Your task to perform on an android device: Show me the best rated 42 inch TV on Walmart. Image 0: 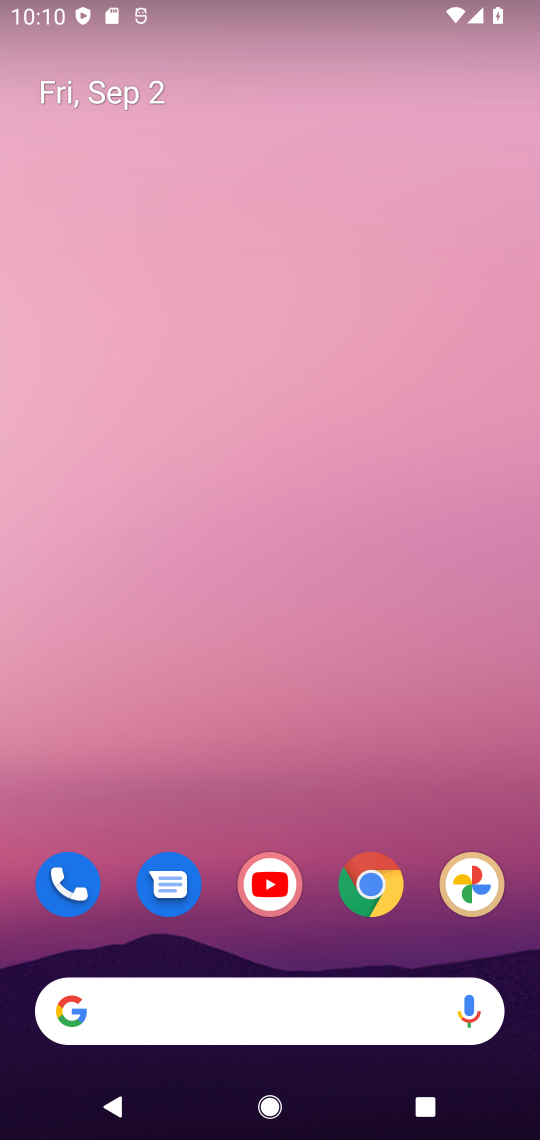
Step 0: click (363, 123)
Your task to perform on an android device: Show me the best rated 42 inch TV on Walmart. Image 1: 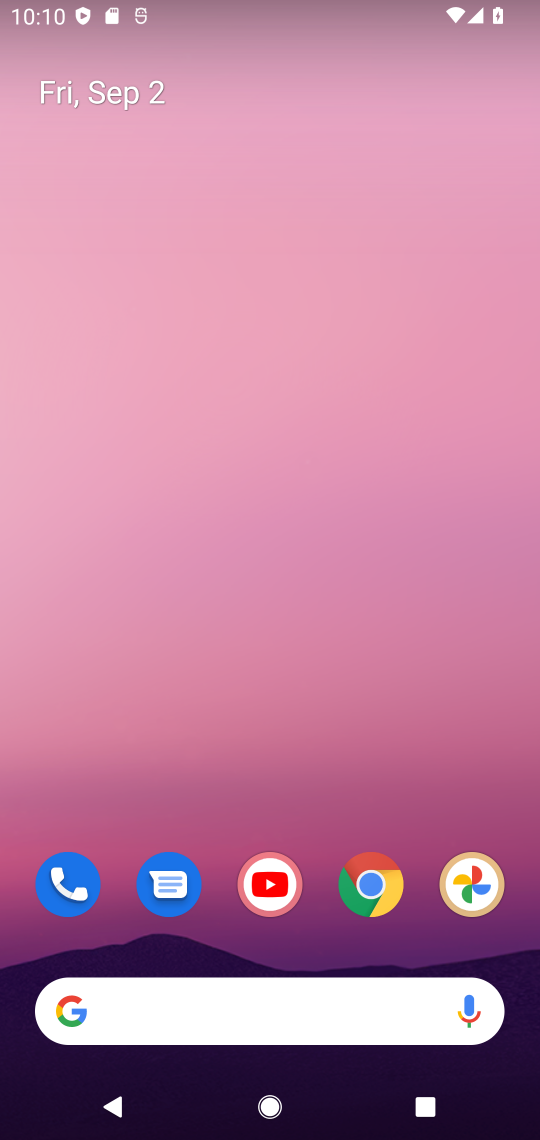
Step 1: drag from (313, 956) to (376, 377)
Your task to perform on an android device: Show me the best rated 42 inch TV on Walmart. Image 2: 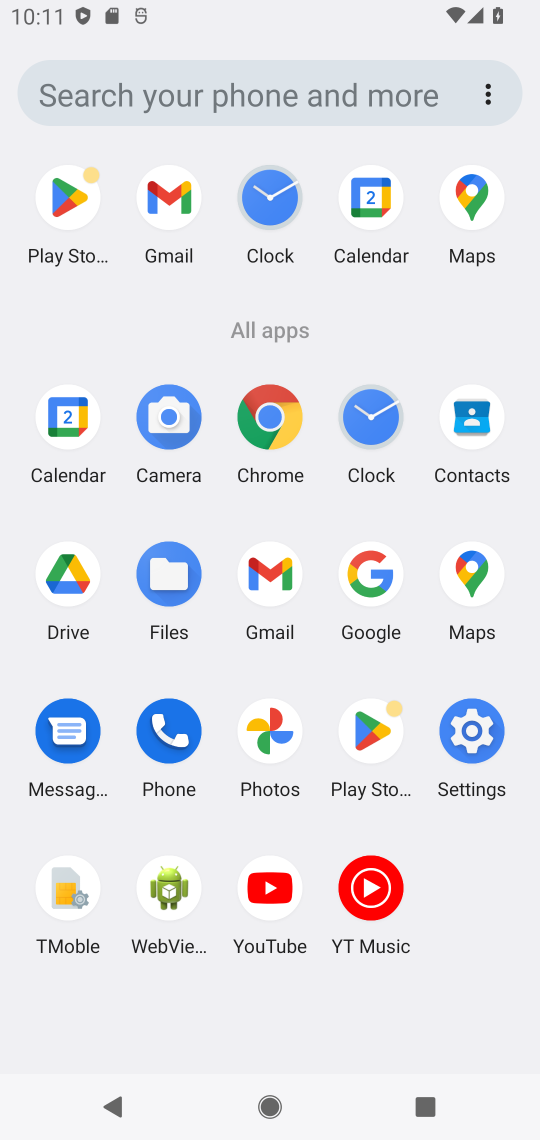
Step 2: click (263, 443)
Your task to perform on an android device: Show me the best rated 42 inch TV on Walmart. Image 3: 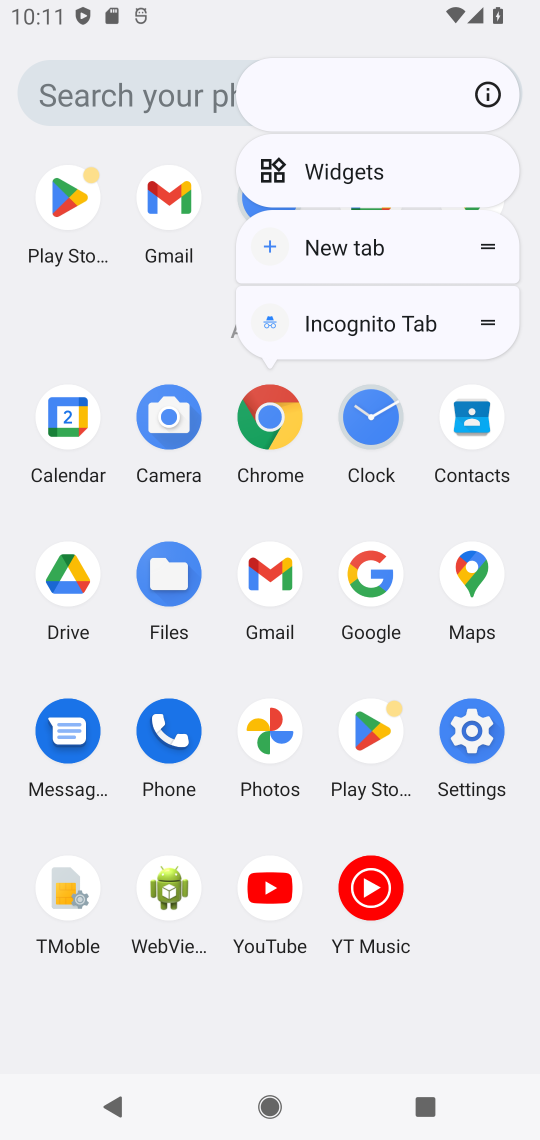
Step 3: click (263, 443)
Your task to perform on an android device: Show me the best rated 42 inch TV on Walmart. Image 4: 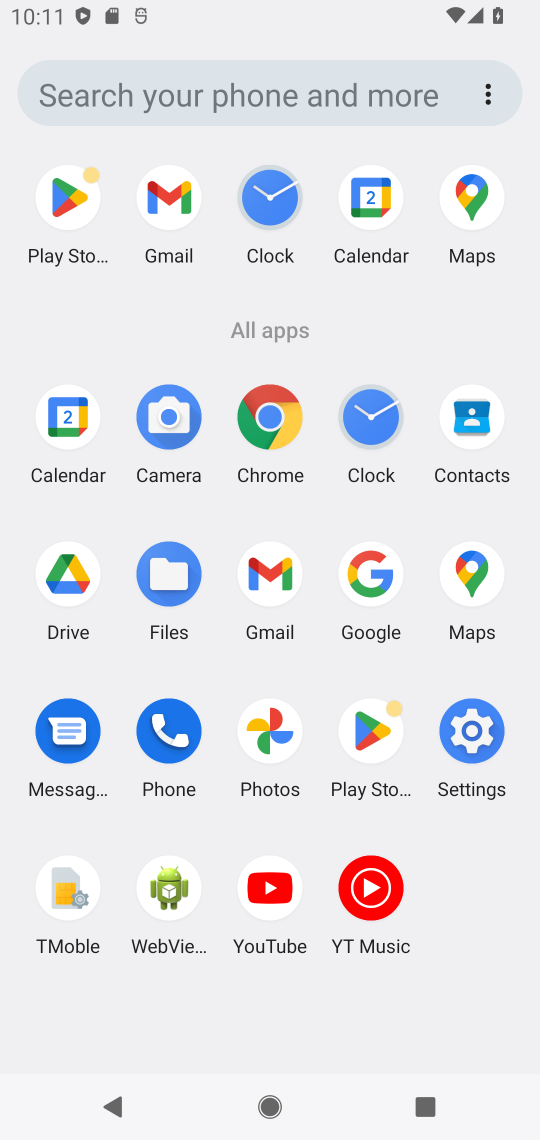
Step 4: click (263, 447)
Your task to perform on an android device: Show me the best rated 42 inch TV on Walmart. Image 5: 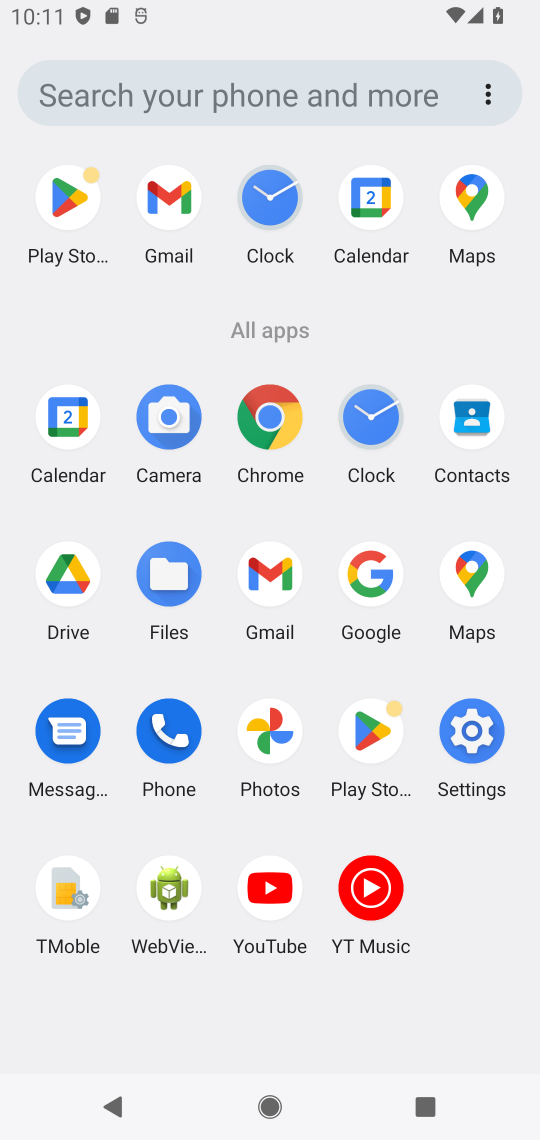
Step 5: click (282, 447)
Your task to perform on an android device: Show me the best rated 42 inch TV on Walmart. Image 6: 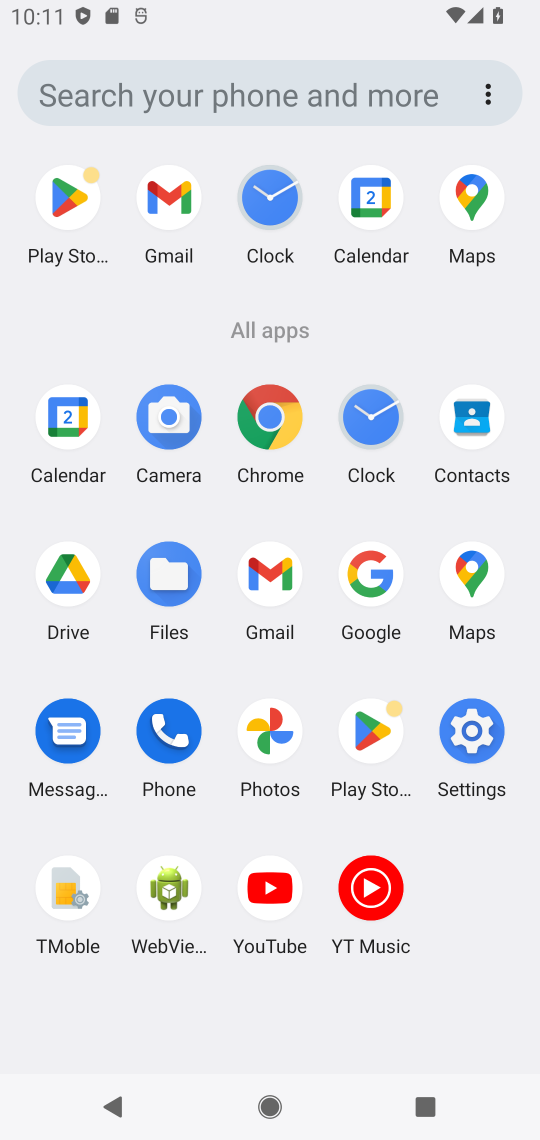
Step 6: click (275, 427)
Your task to perform on an android device: Show me the best rated 42 inch TV on Walmart. Image 7: 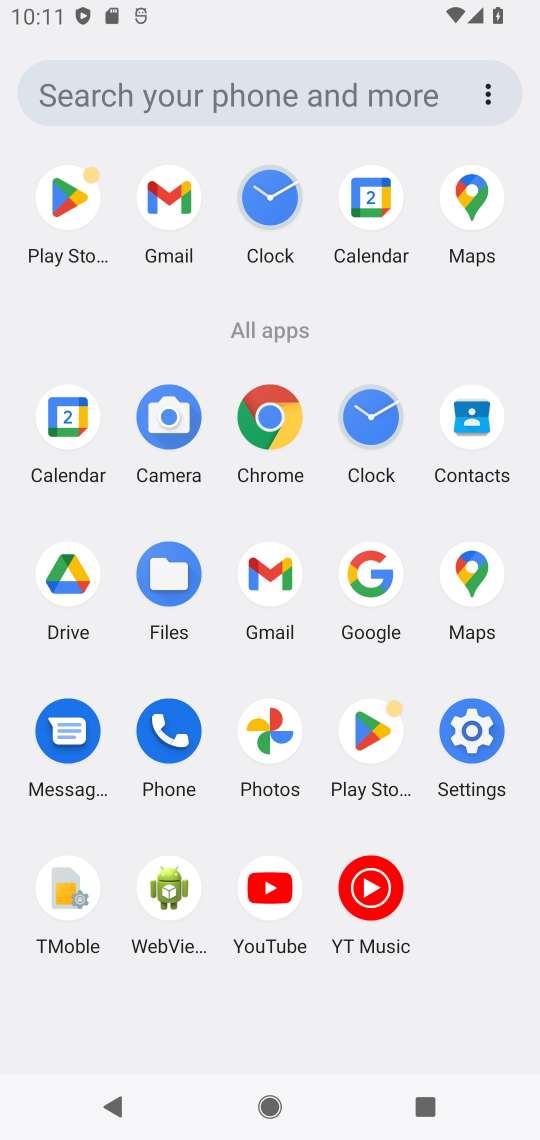
Step 7: click (286, 433)
Your task to perform on an android device: Show me the best rated 42 inch TV on Walmart. Image 8: 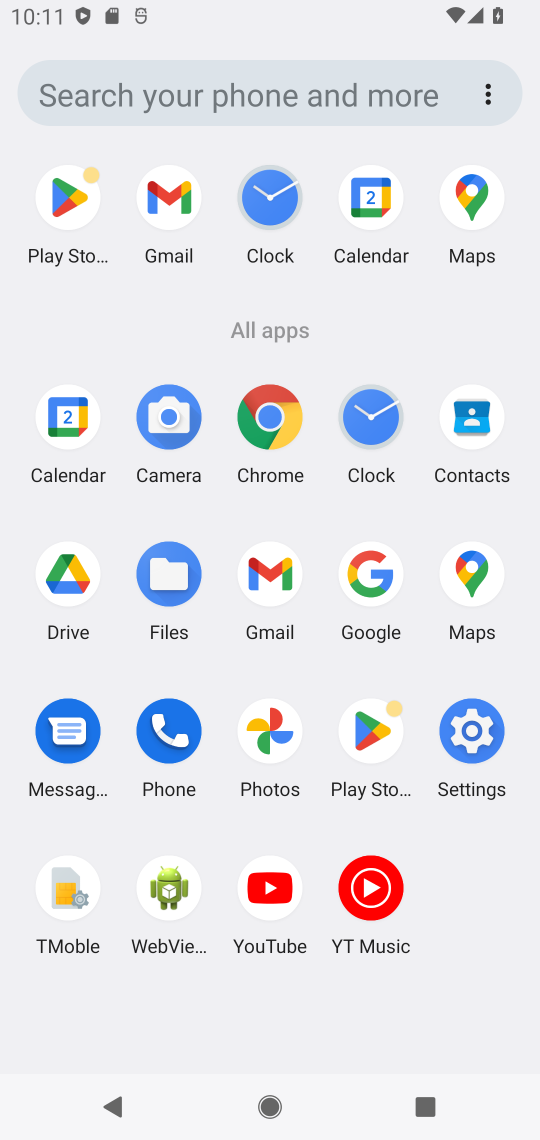
Step 8: click (286, 433)
Your task to perform on an android device: Show me the best rated 42 inch TV on Walmart. Image 9: 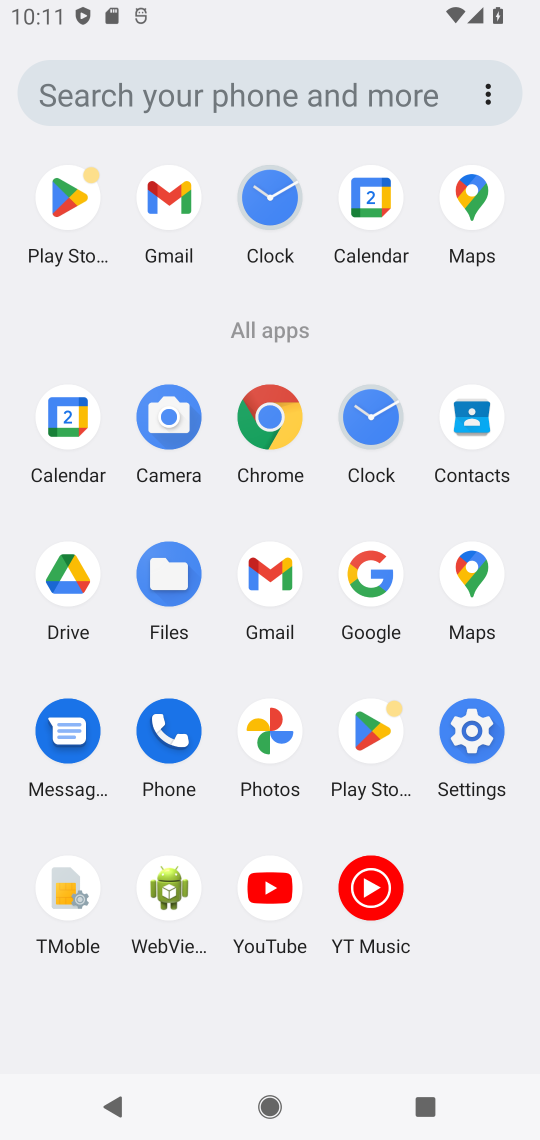
Step 9: click (280, 454)
Your task to perform on an android device: Show me the best rated 42 inch TV on Walmart. Image 10: 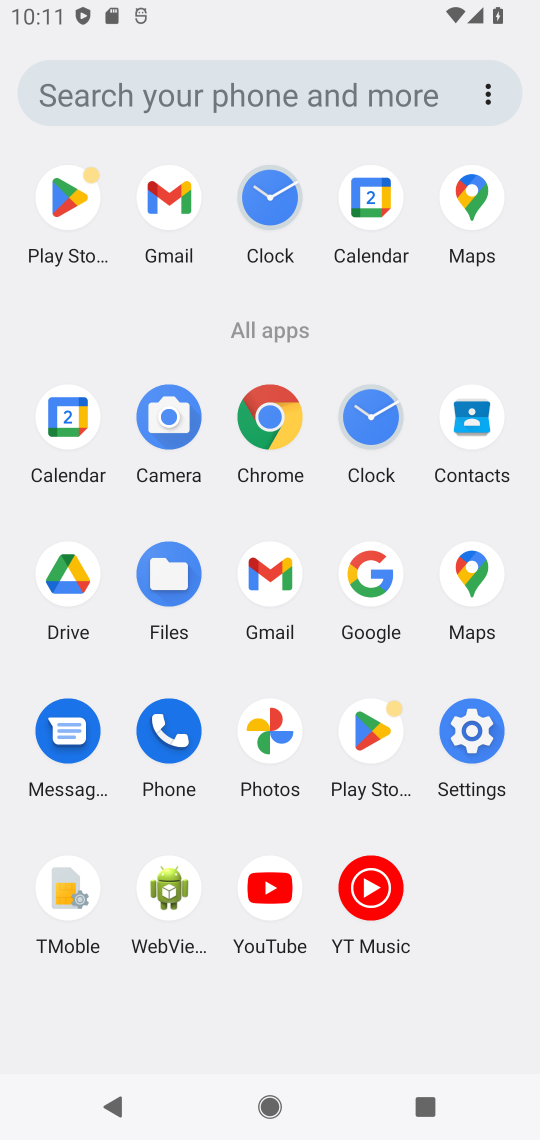
Step 10: click (280, 454)
Your task to perform on an android device: Show me the best rated 42 inch TV on Walmart. Image 11: 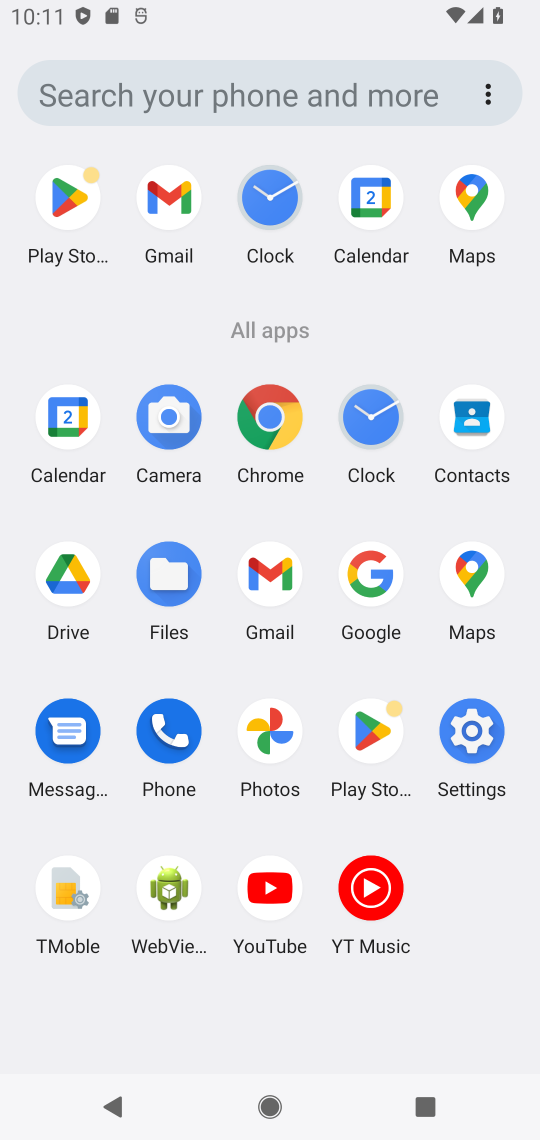
Step 11: click (280, 454)
Your task to perform on an android device: Show me the best rated 42 inch TV on Walmart. Image 12: 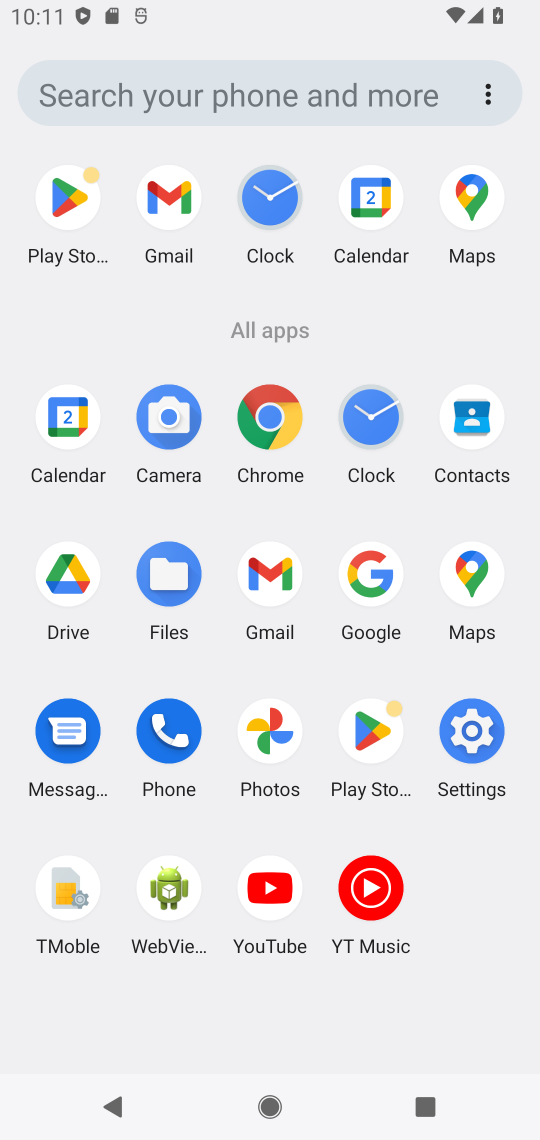
Step 12: drag from (280, 810) to (286, 253)
Your task to perform on an android device: Show me the best rated 42 inch TV on Walmart. Image 13: 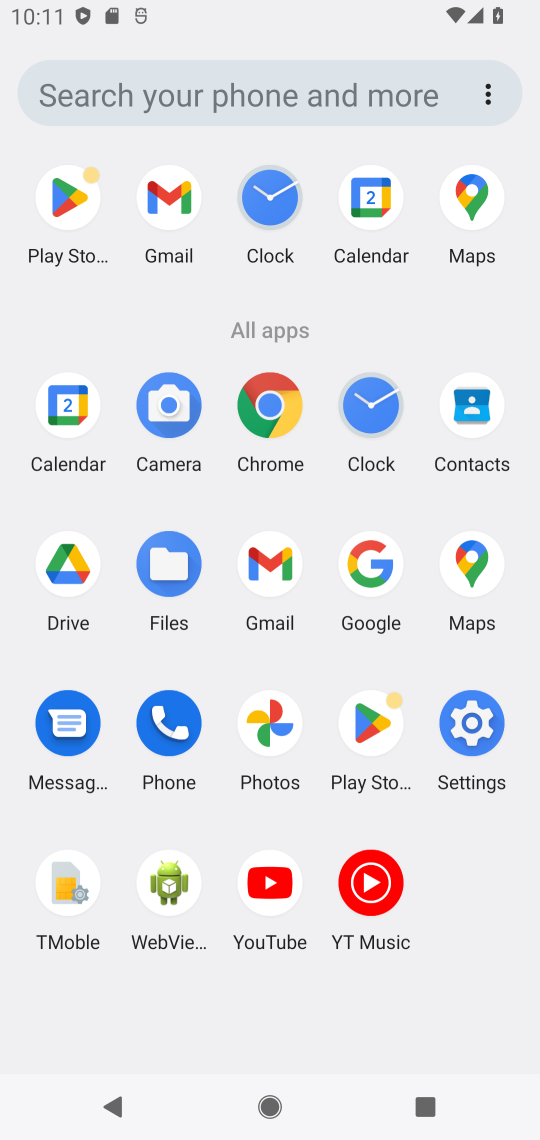
Step 13: drag from (285, 299) to (313, 417)
Your task to perform on an android device: Show me the best rated 42 inch TV on Walmart. Image 14: 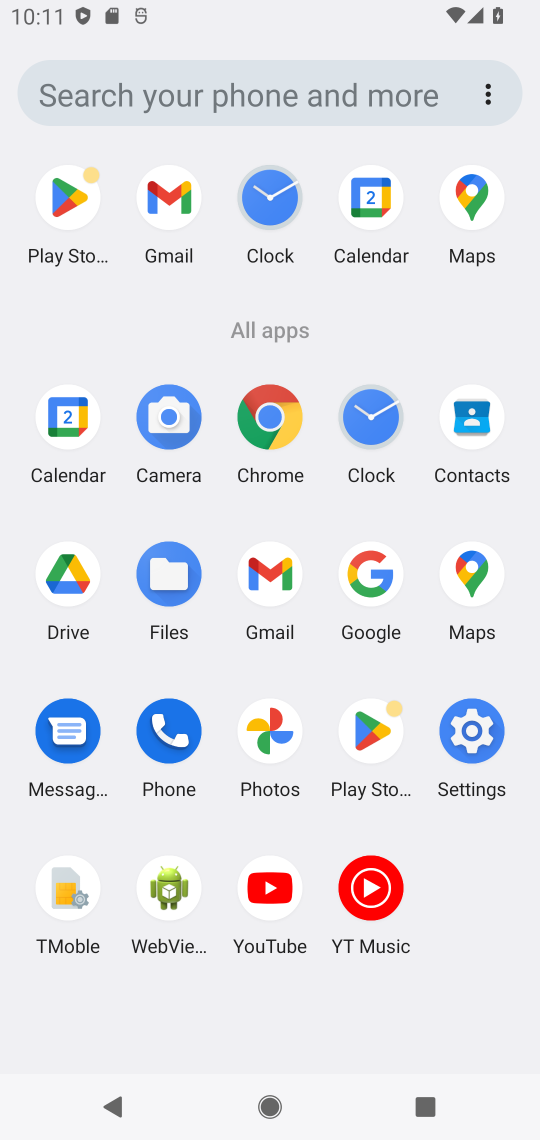
Step 14: click (273, 446)
Your task to perform on an android device: Show me the best rated 42 inch TV on Walmart. Image 15: 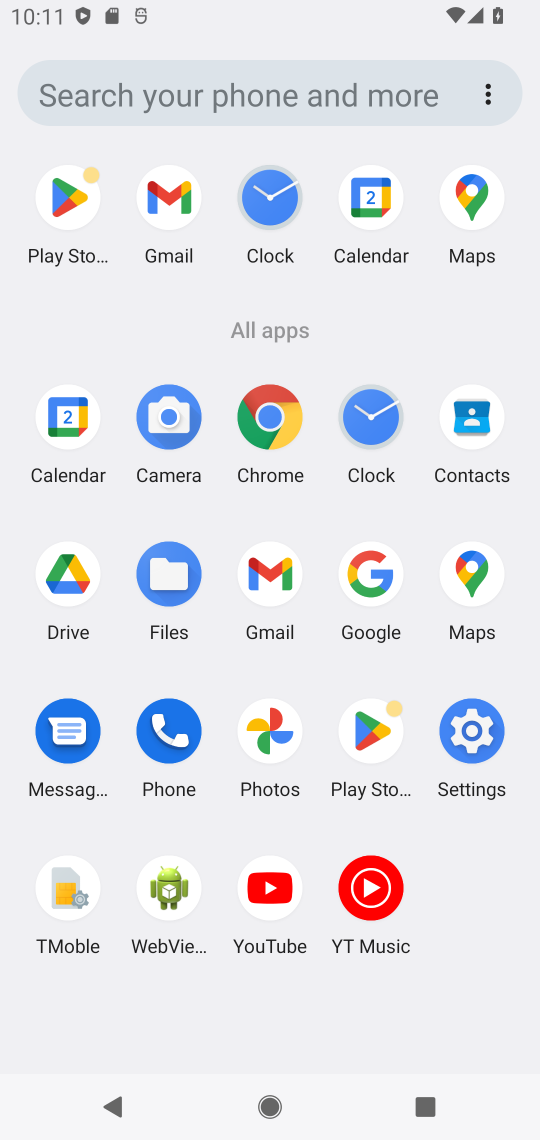
Step 15: click (273, 446)
Your task to perform on an android device: Show me the best rated 42 inch TV on Walmart. Image 16: 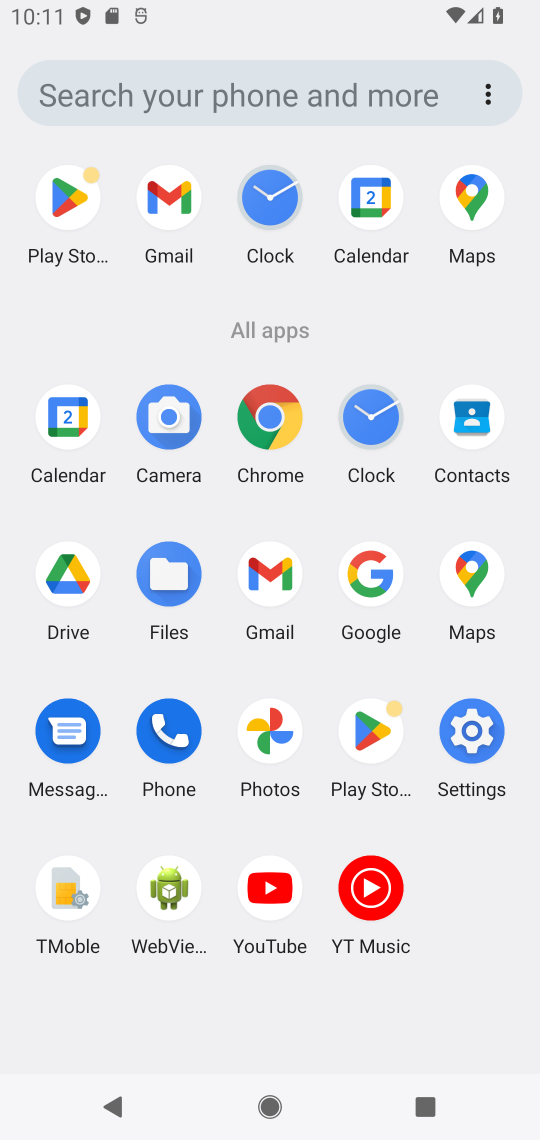
Step 16: click (283, 436)
Your task to perform on an android device: Show me the best rated 42 inch TV on Walmart. Image 17: 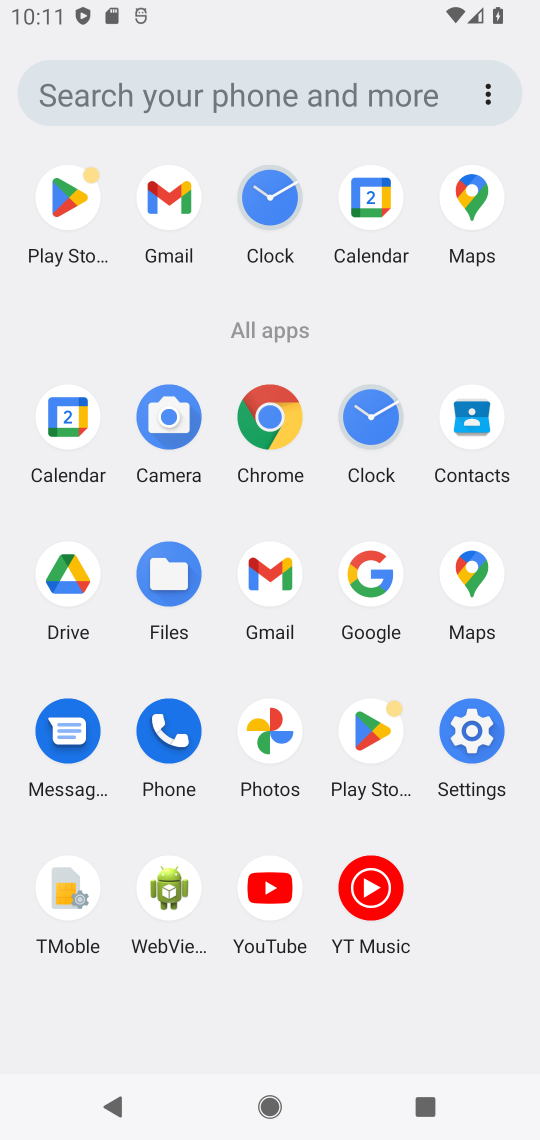
Step 17: click (283, 436)
Your task to perform on an android device: Show me the best rated 42 inch TV on Walmart. Image 18: 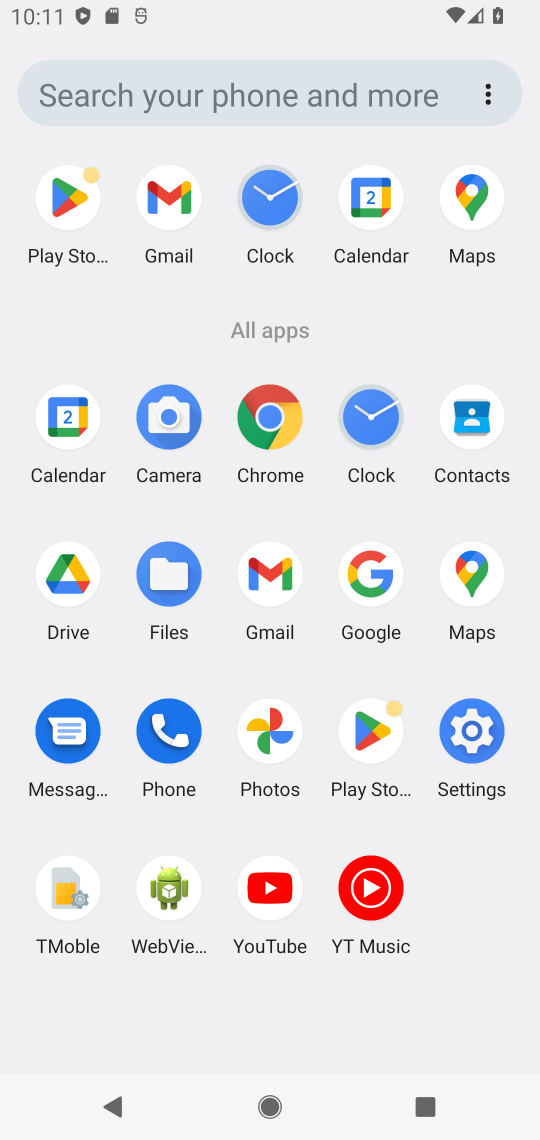
Step 18: click (283, 436)
Your task to perform on an android device: Show me the best rated 42 inch TV on Walmart. Image 19: 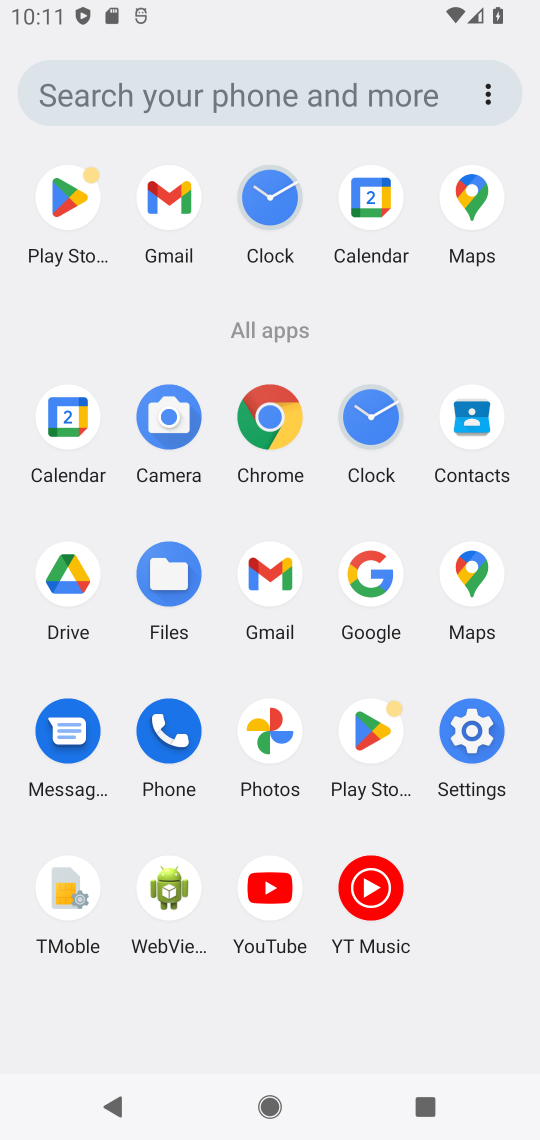
Step 19: click (283, 436)
Your task to perform on an android device: Show me the best rated 42 inch TV on Walmart. Image 20: 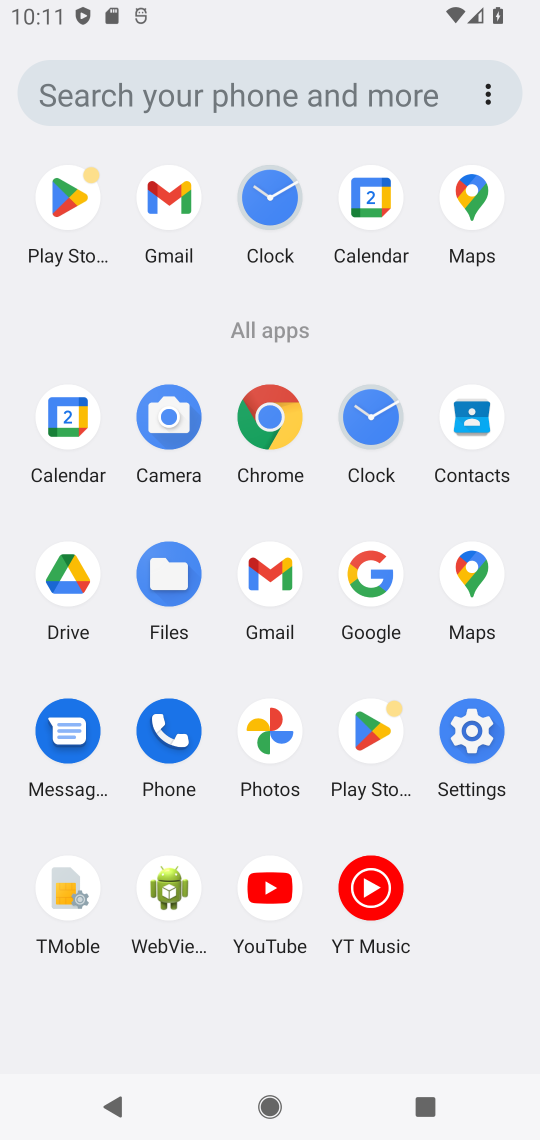
Step 20: click (376, 443)
Your task to perform on an android device: Show me the best rated 42 inch TV on Walmart. Image 21: 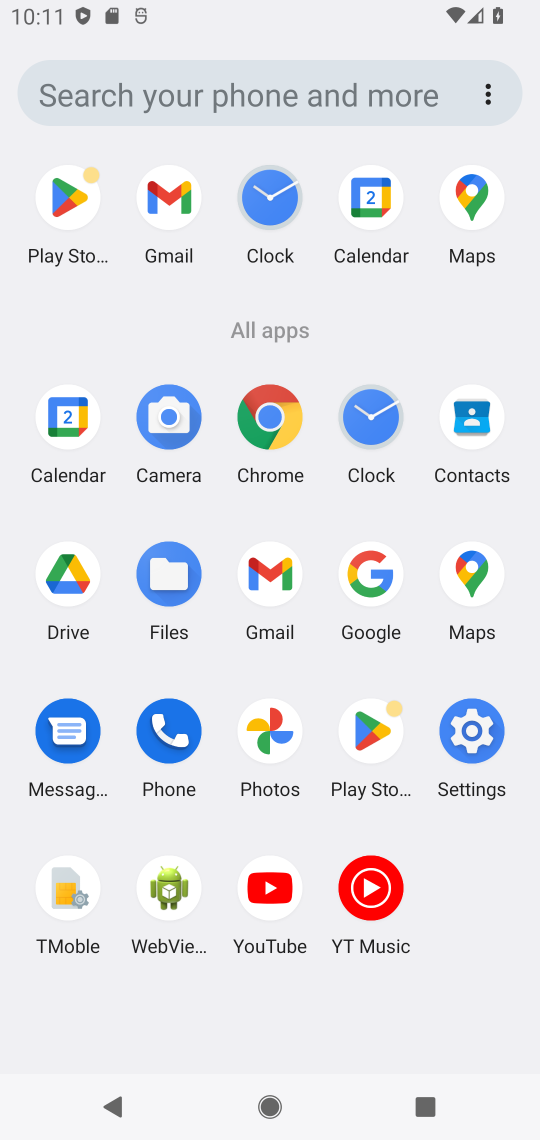
Step 21: click (376, 443)
Your task to perform on an android device: Show me the best rated 42 inch TV on Walmart. Image 22: 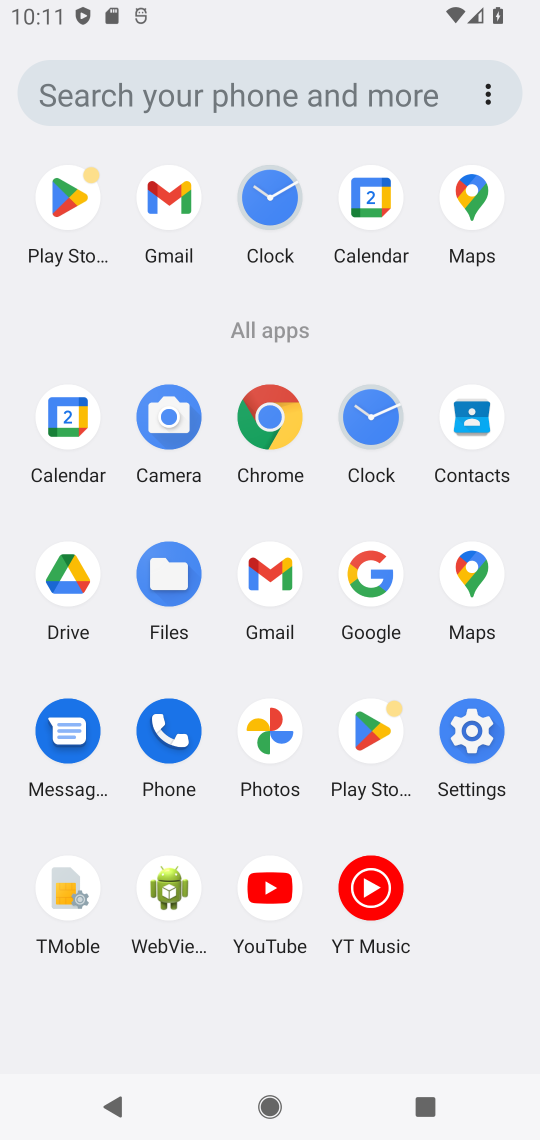
Step 22: click (376, 443)
Your task to perform on an android device: Show me the best rated 42 inch TV on Walmart. Image 23: 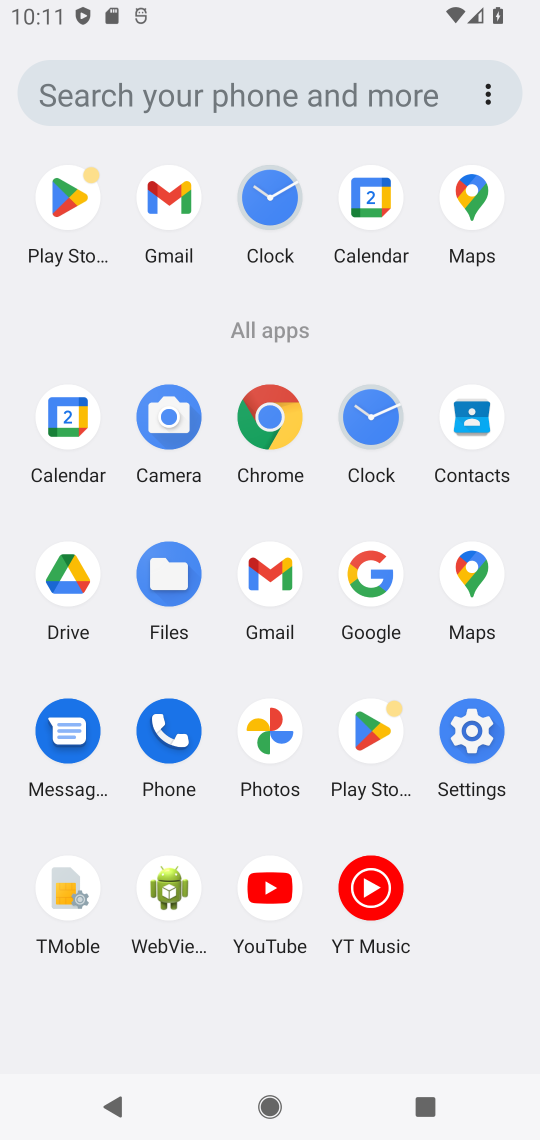
Step 23: click (376, 443)
Your task to perform on an android device: Show me the best rated 42 inch TV on Walmart. Image 24: 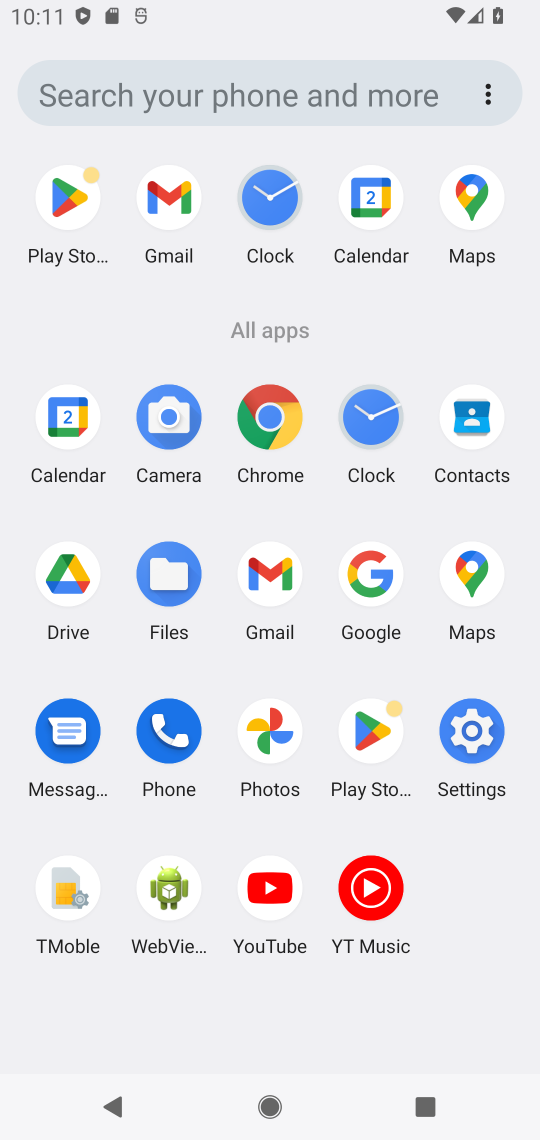
Step 24: click (435, 307)
Your task to perform on an android device: Show me the best rated 42 inch TV on Walmart. Image 25: 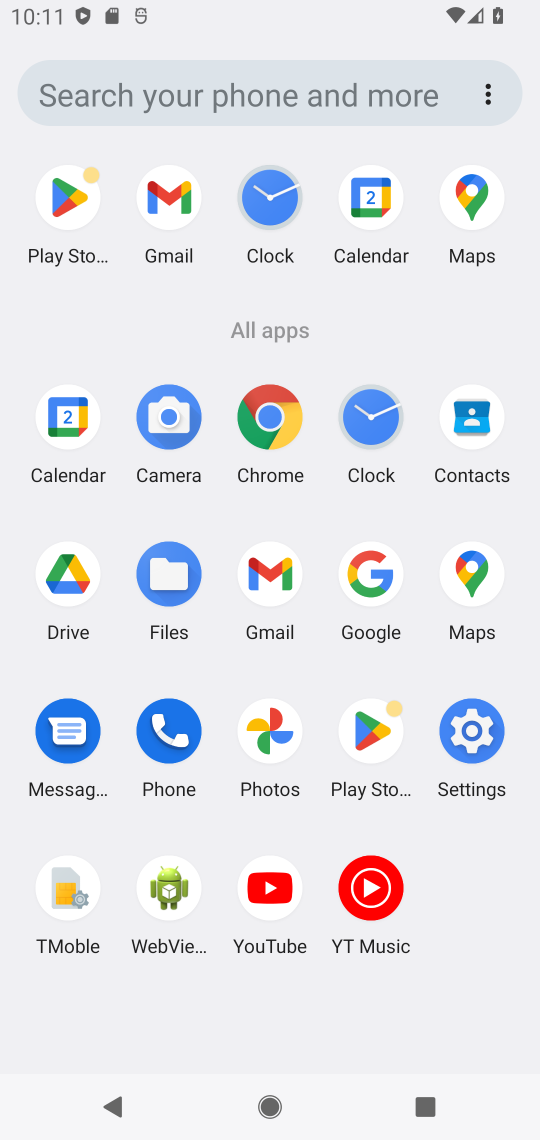
Step 25: click (257, 454)
Your task to perform on an android device: Show me the best rated 42 inch TV on Walmart. Image 26: 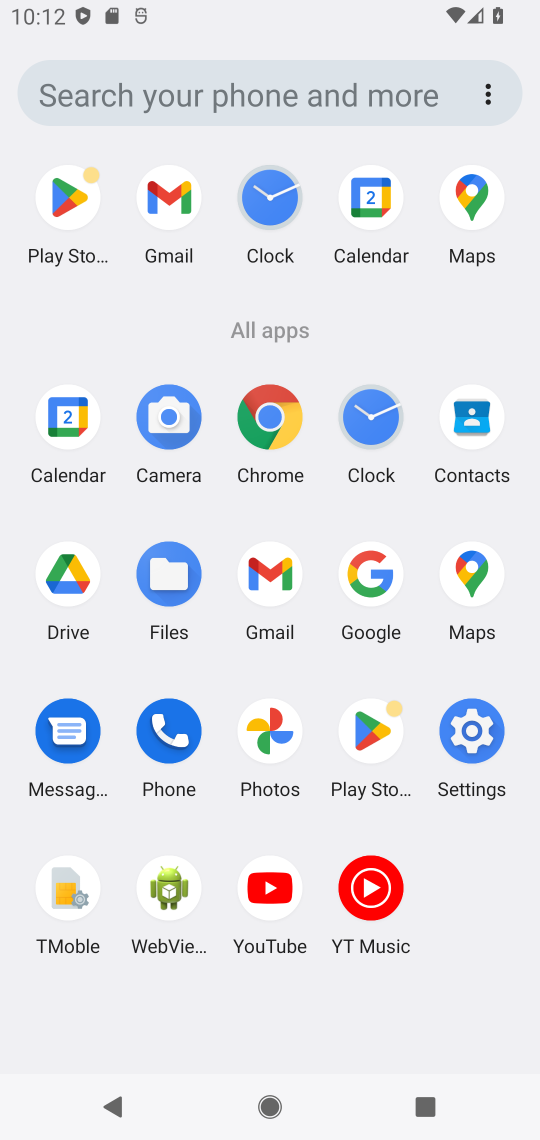
Step 26: click (286, 443)
Your task to perform on an android device: Show me the best rated 42 inch TV on Walmart. Image 27: 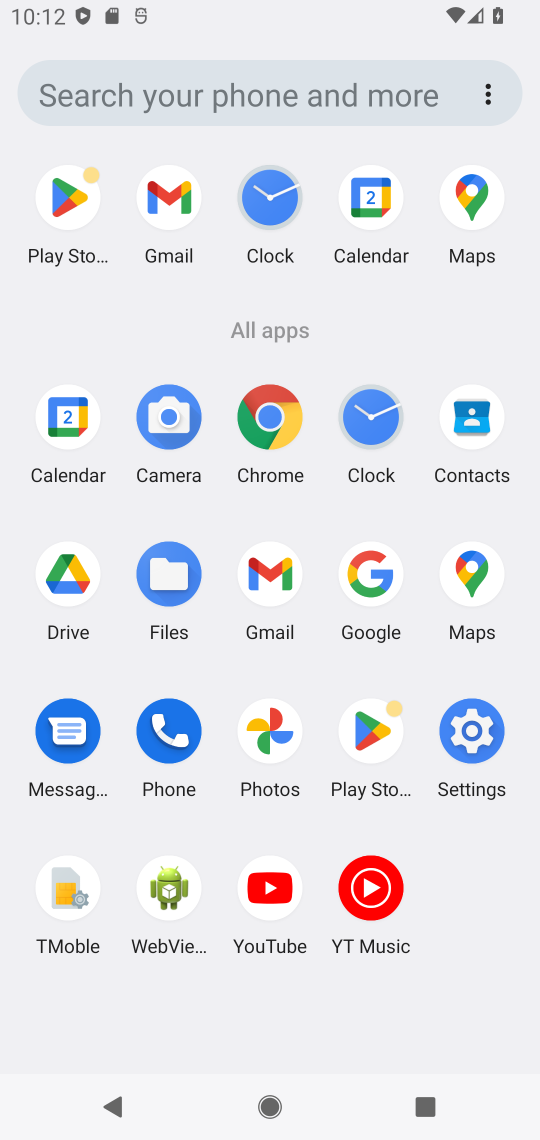
Step 27: click (276, 431)
Your task to perform on an android device: Show me the best rated 42 inch TV on Walmart. Image 28: 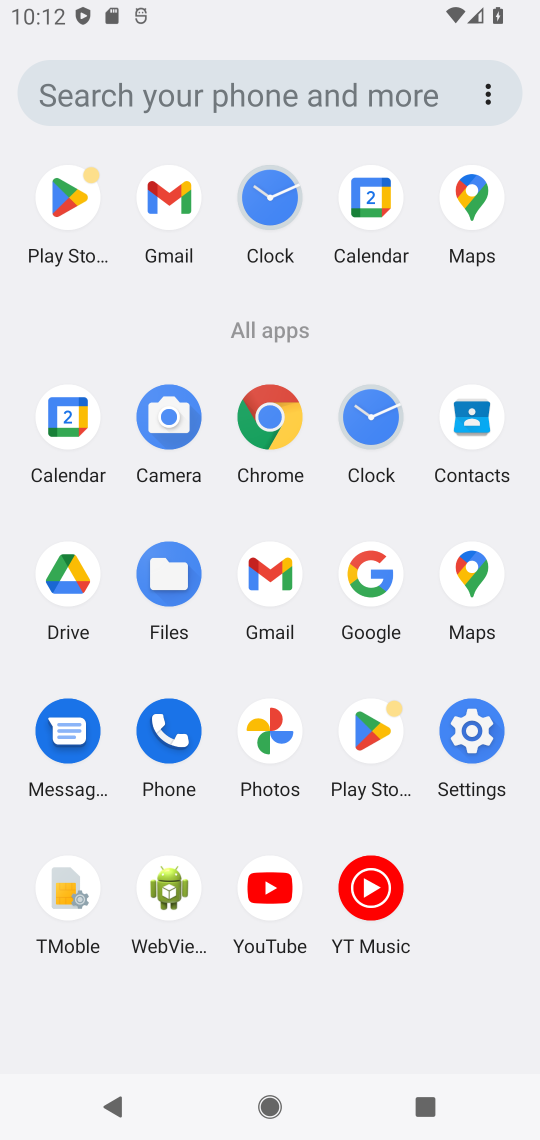
Step 28: click (276, 431)
Your task to perform on an android device: Show me the best rated 42 inch TV on Walmart. Image 29: 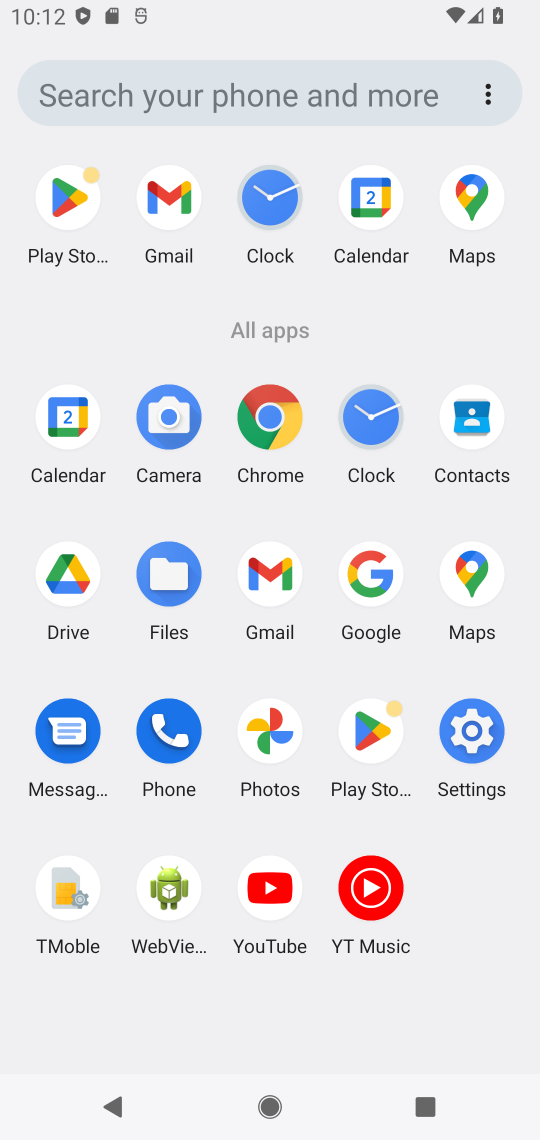
Step 29: click (276, 431)
Your task to perform on an android device: Show me the best rated 42 inch TV on Walmart. Image 30: 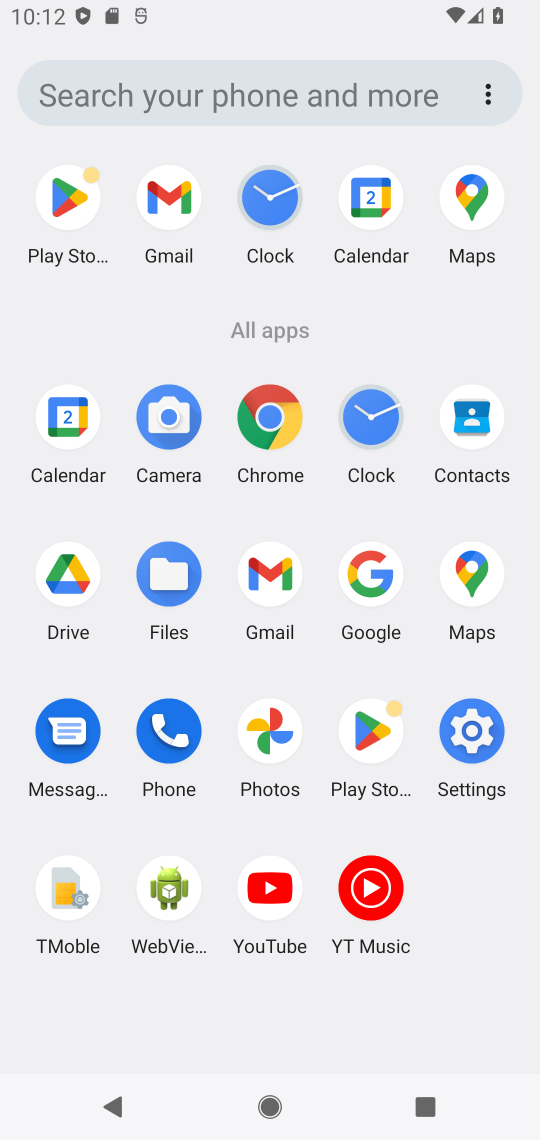
Step 30: click (281, 597)
Your task to perform on an android device: Show me the best rated 42 inch TV on Walmart. Image 31: 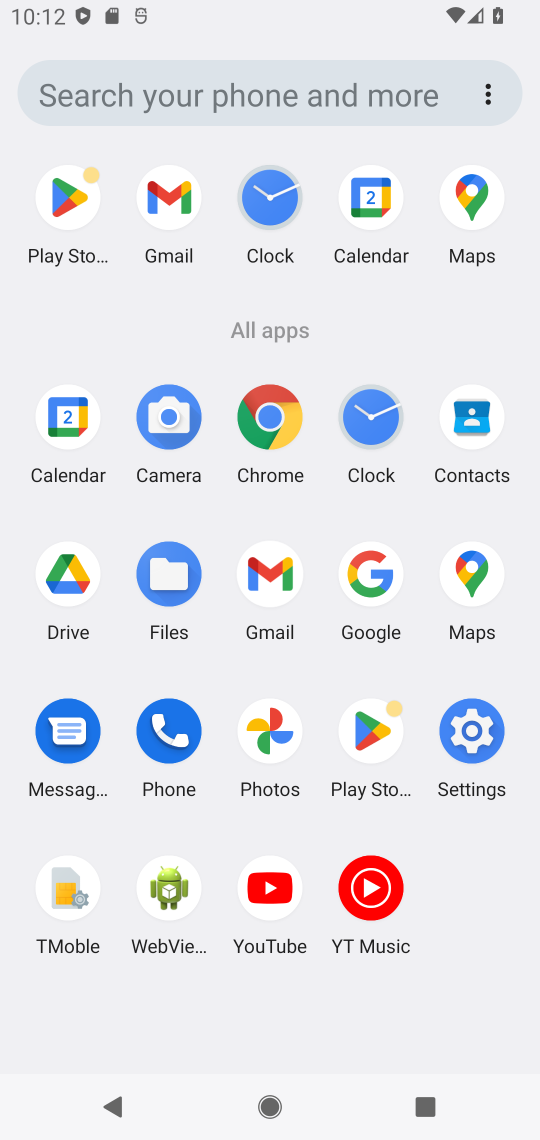
Step 31: click (281, 597)
Your task to perform on an android device: Show me the best rated 42 inch TV on Walmart. Image 32: 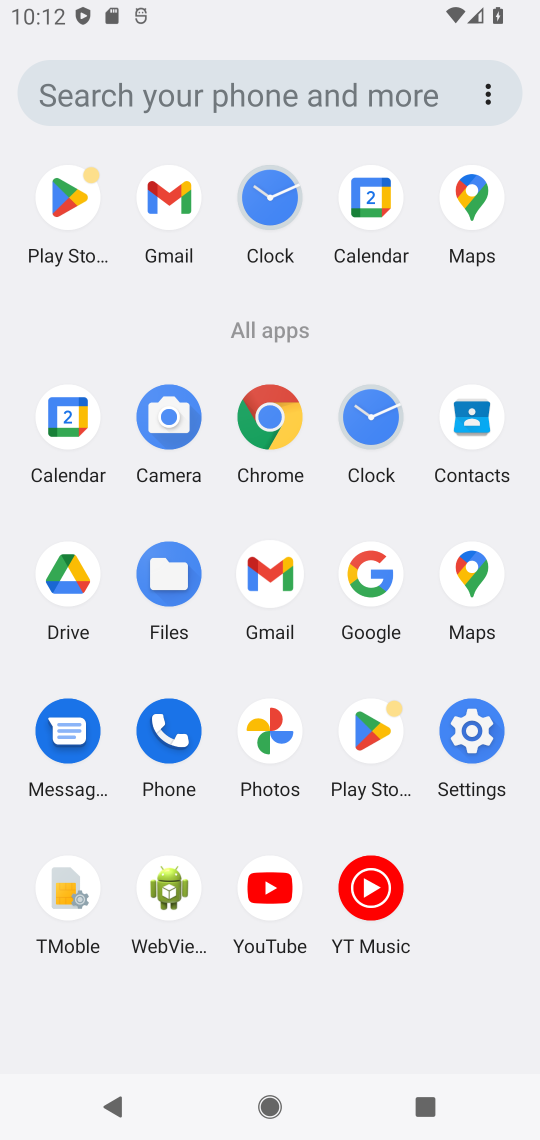
Step 32: click (281, 597)
Your task to perform on an android device: Show me the best rated 42 inch TV on Walmart. Image 33: 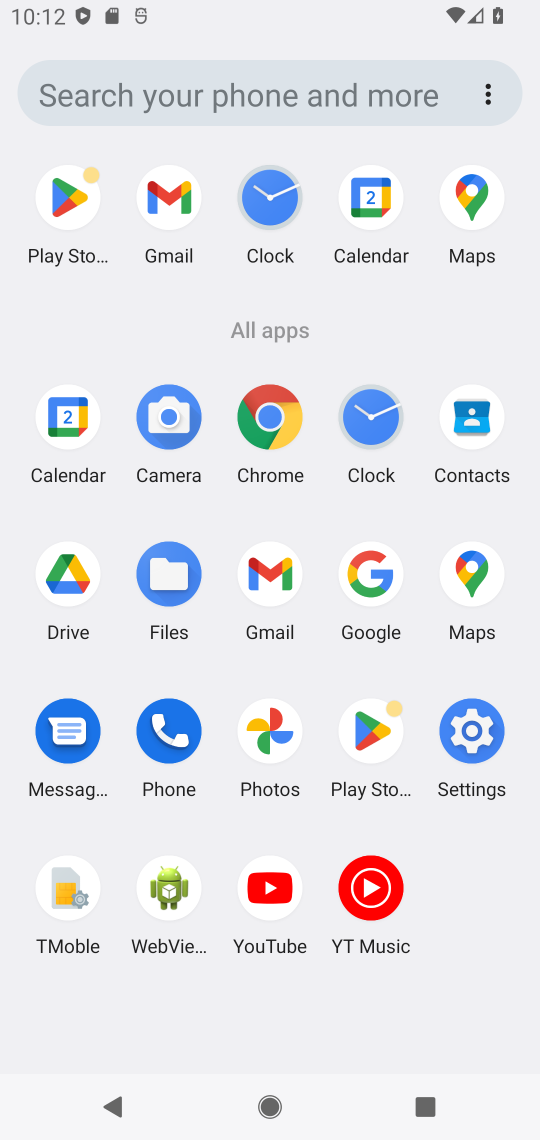
Step 33: click (71, 588)
Your task to perform on an android device: Show me the best rated 42 inch TV on Walmart. Image 34: 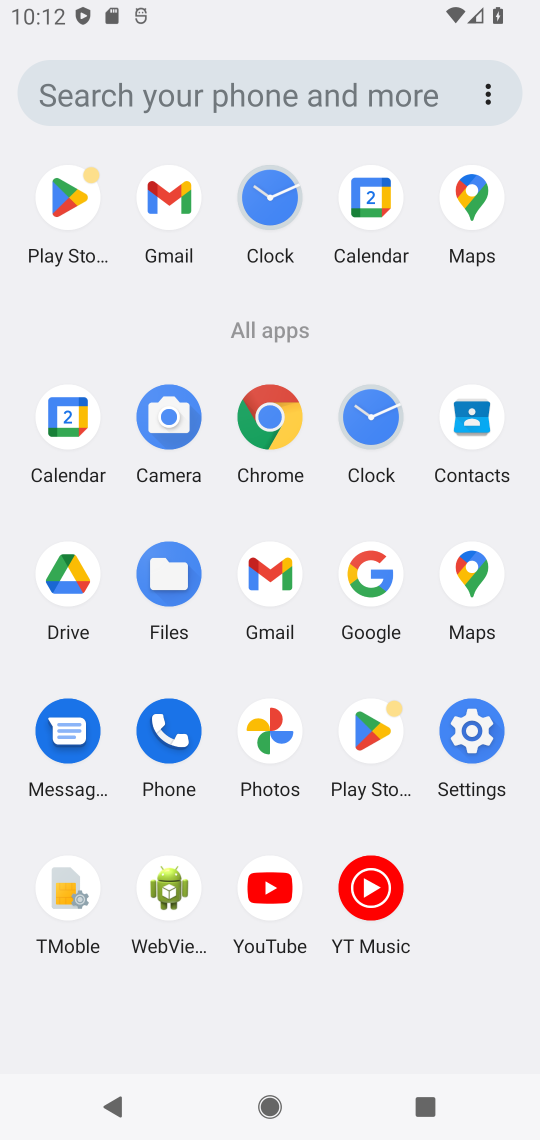
Step 34: click (71, 588)
Your task to perform on an android device: Show me the best rated 42 inch TV on Walmart. Image 35: 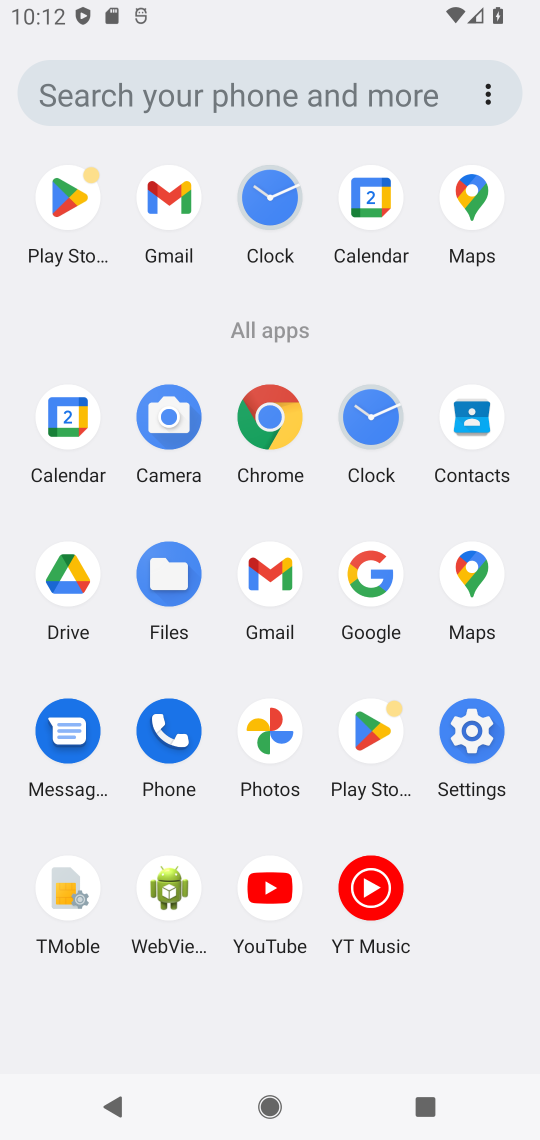
Step 35: click (192, 196)
Your task to perform on an android device: Show me the best rated 42 inch TV on Walmart. Image 36: 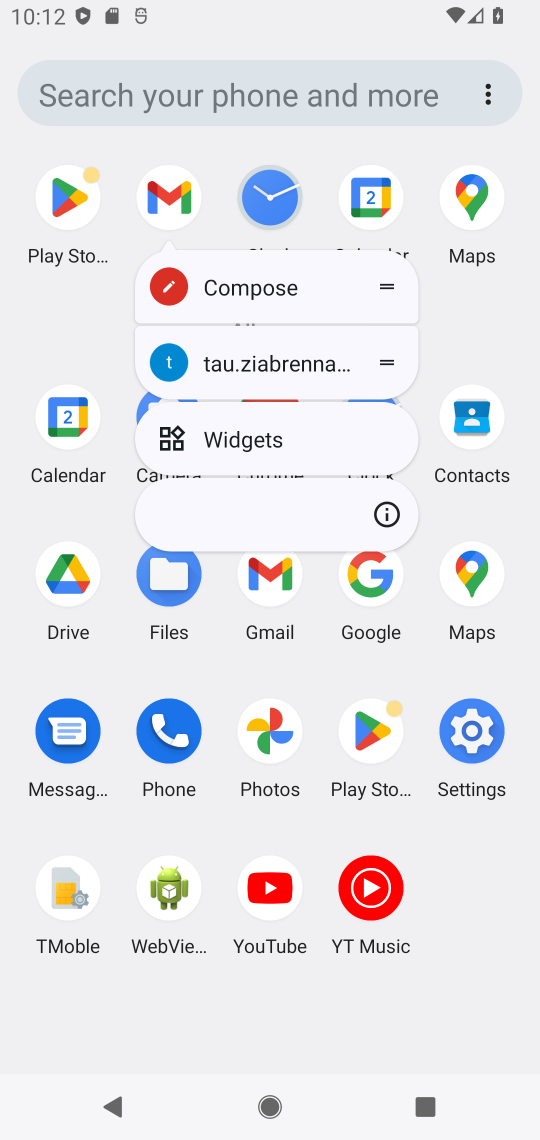
Step 36: click (351, 710)
Your task to perform on an android device: Show me the best rated 42 inch TV on Walmart. Image 37: 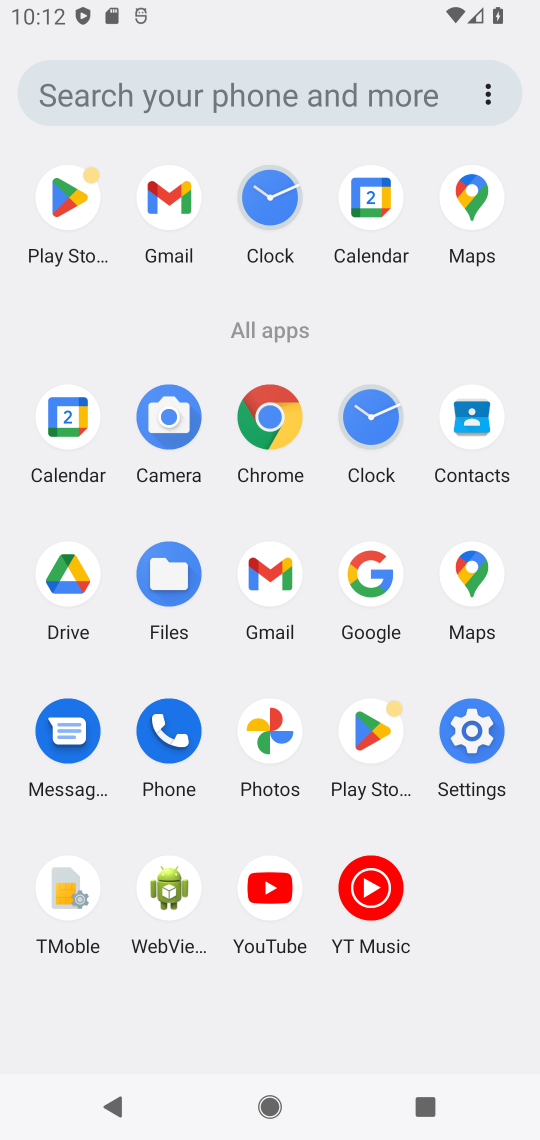
Step 37: click (283, 467)
Your task to perform on an android device: Show me the best rated 42 inch TV on Walmart. Image 38: 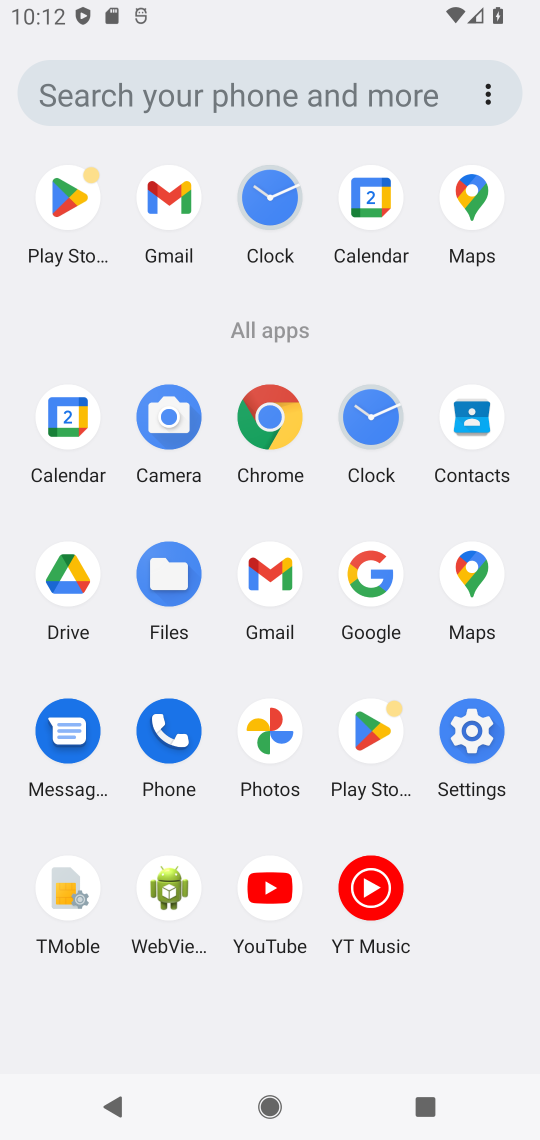
Step 38: click (271, 476)
Your task to perform on an android device: Show me the best rated 42 inch TV on Walmart. Image 39: 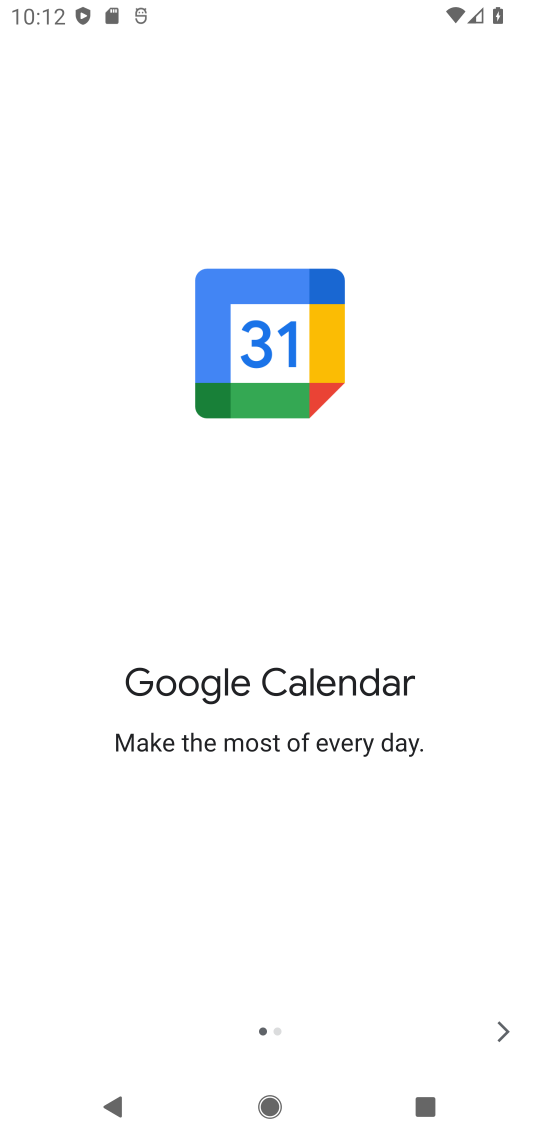
Step 39: press home button
Your task to perform on an android device: Show me the best rated 42 inch TV on Walmart. Image 40: 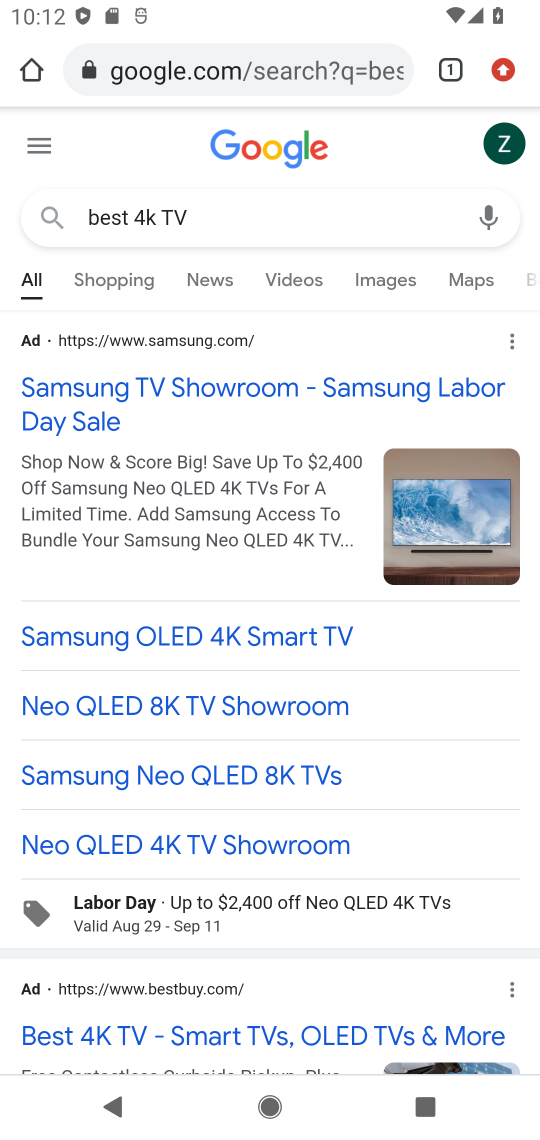
Step 40: click (380, 82)
Your task to perform on an android device: Show me the best rated 42 inch TV on Walmart. Image 41: 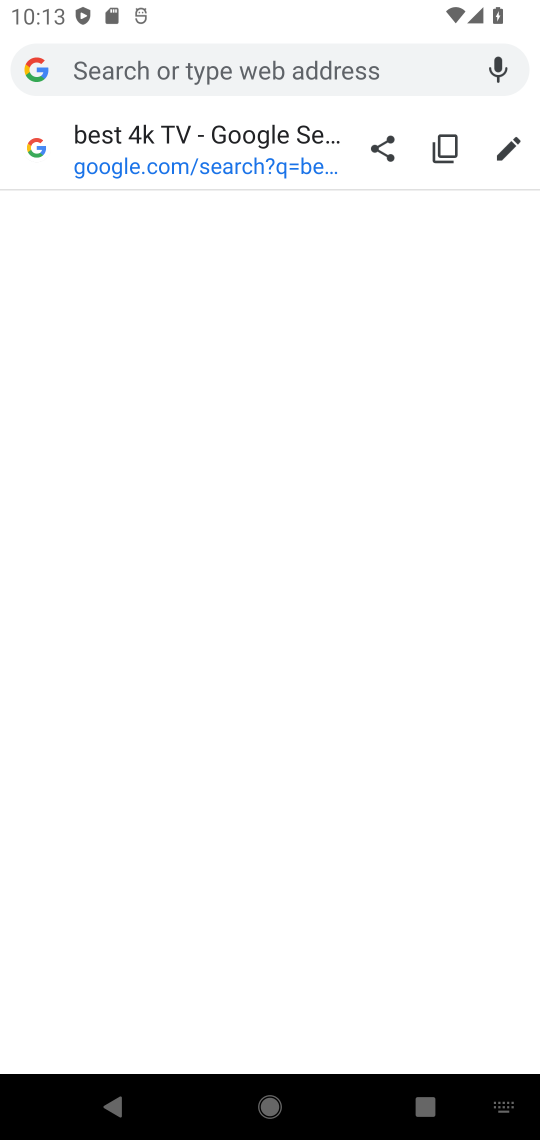
Step 41: type "walmart"
Your task to perform on an android device: Show me the best rated 42 inch TV on Walmart. Image 42: 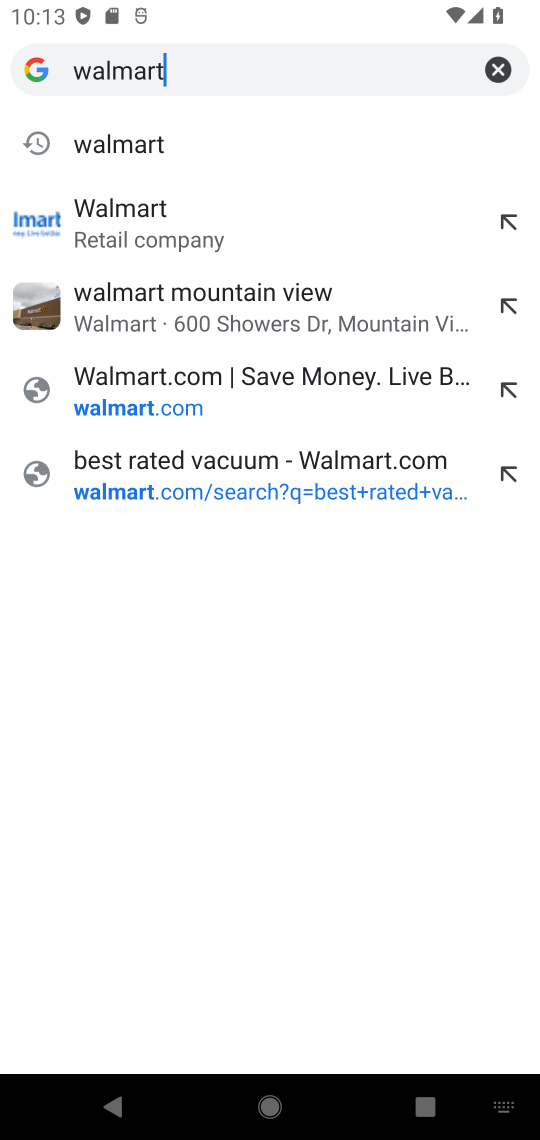
Step 42: click (250, 218)
Your task to perform on an android device: Show me the best rated 42 inch TV on Walmart. Image 43: 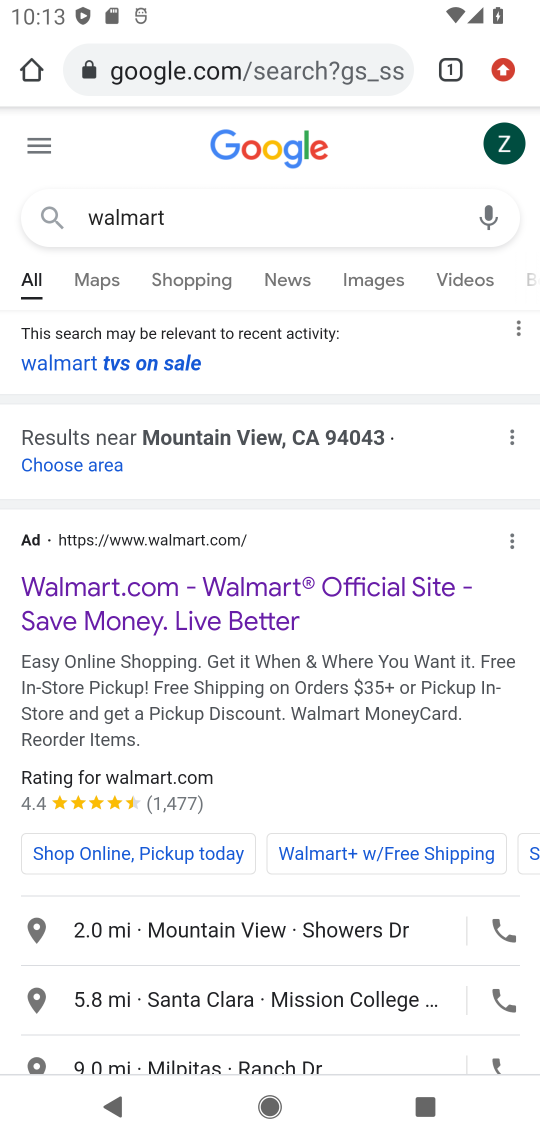
Step 43: click (224, 617)
Your task to perform on an android device: Show me the best rated 42 inch TV on Walmart. Image 44: 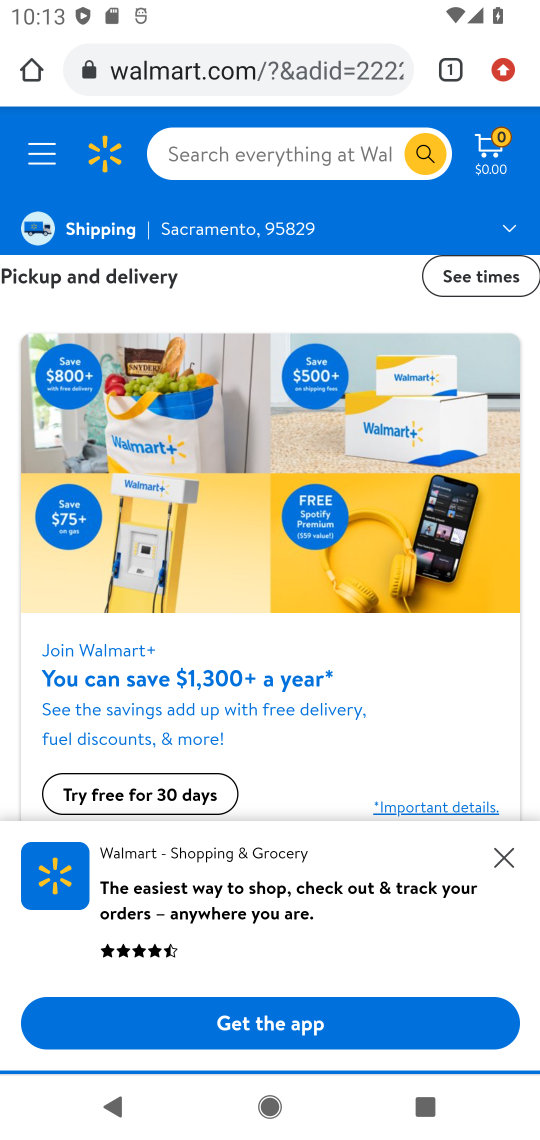
Step 44: click (308, 146)
Your task to perform on an android device: Show me the best rated 42 inch TV on Walmart. Image 45: 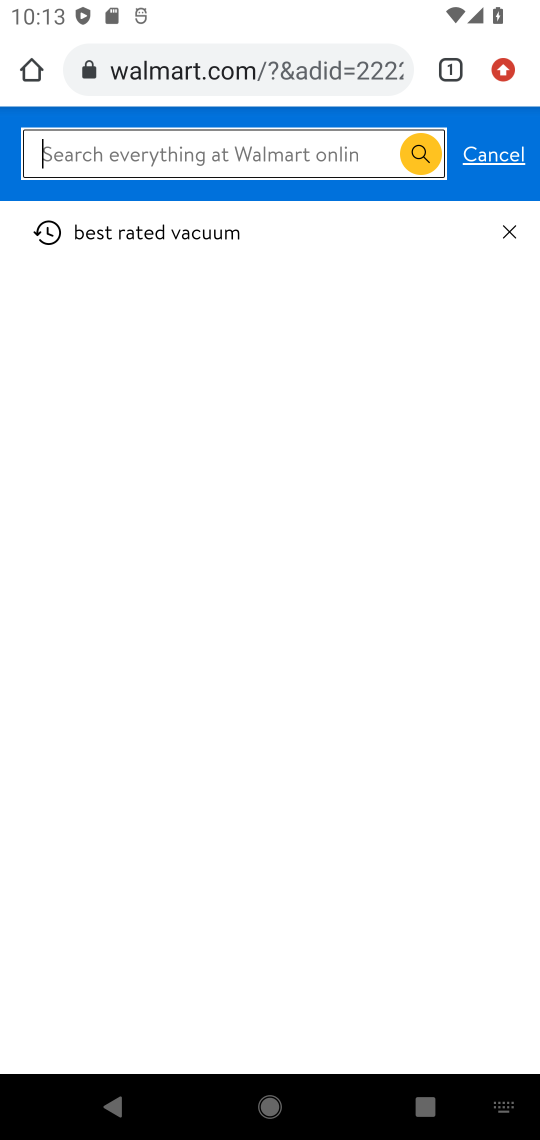
Step 45: type "best rated 42 inch TV"
Your task to perform on an android device: Show me the best rated 42 inch TV on Walmart. Image 46: 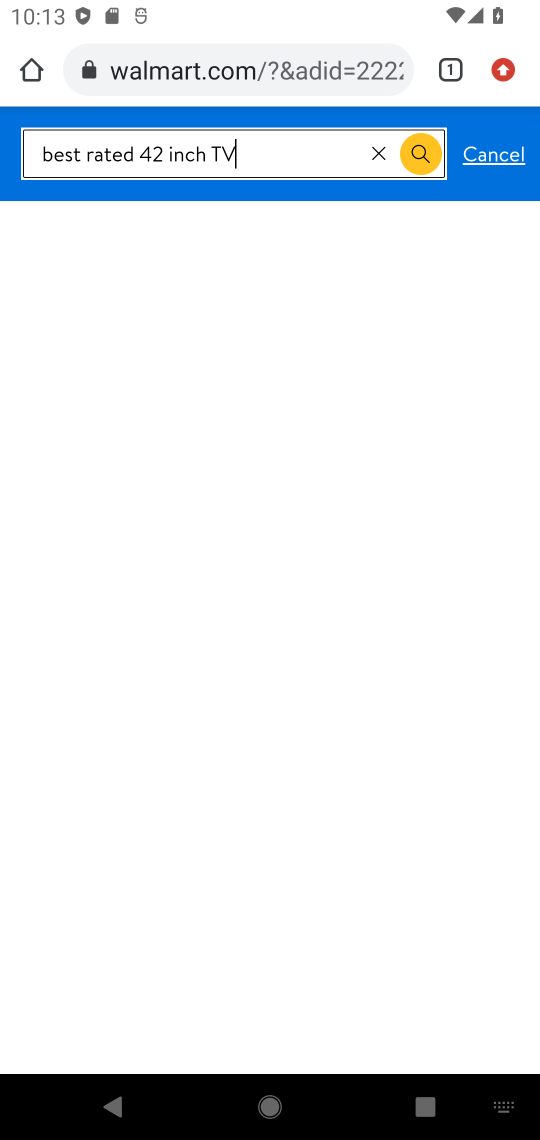
Step 46: click (428, 155)
Your task to perform on an android device: Show me the best rated 42 inch TV on Walmart. Image 47: 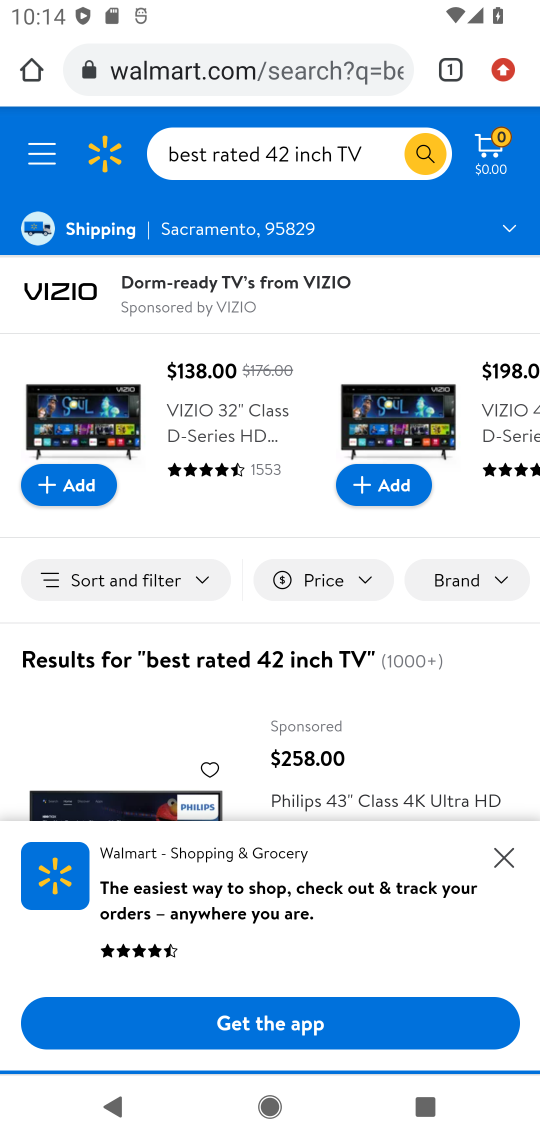
Step 47: click (508, 853)
Your task to perform on an android device: Show me the best rated 42 inch TV on Walmart. Image 48: 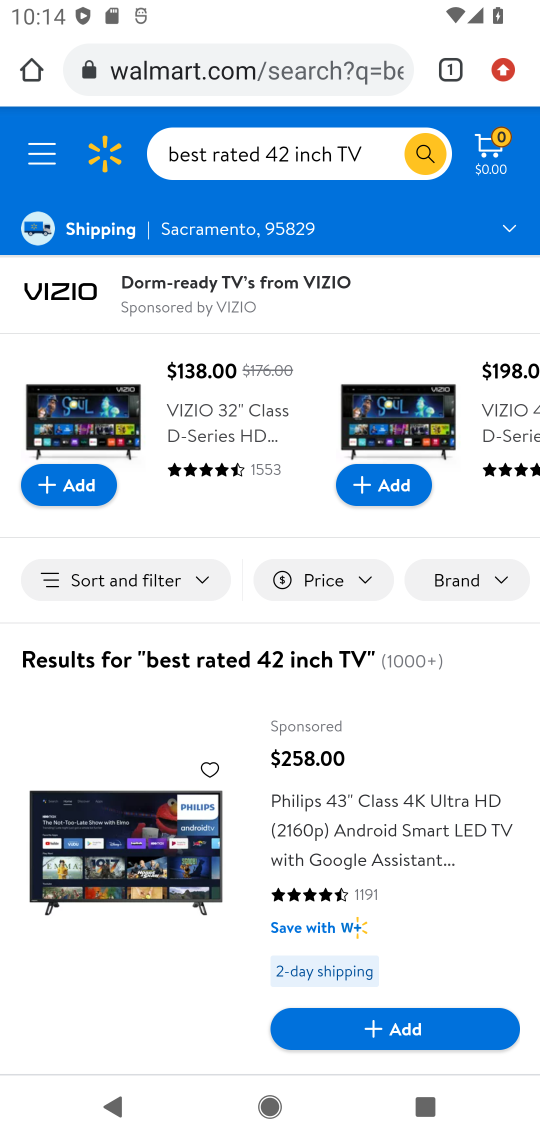
Step 48: task complete